Your task to perform on an android device: Set an alarm for 1pm Image 0: 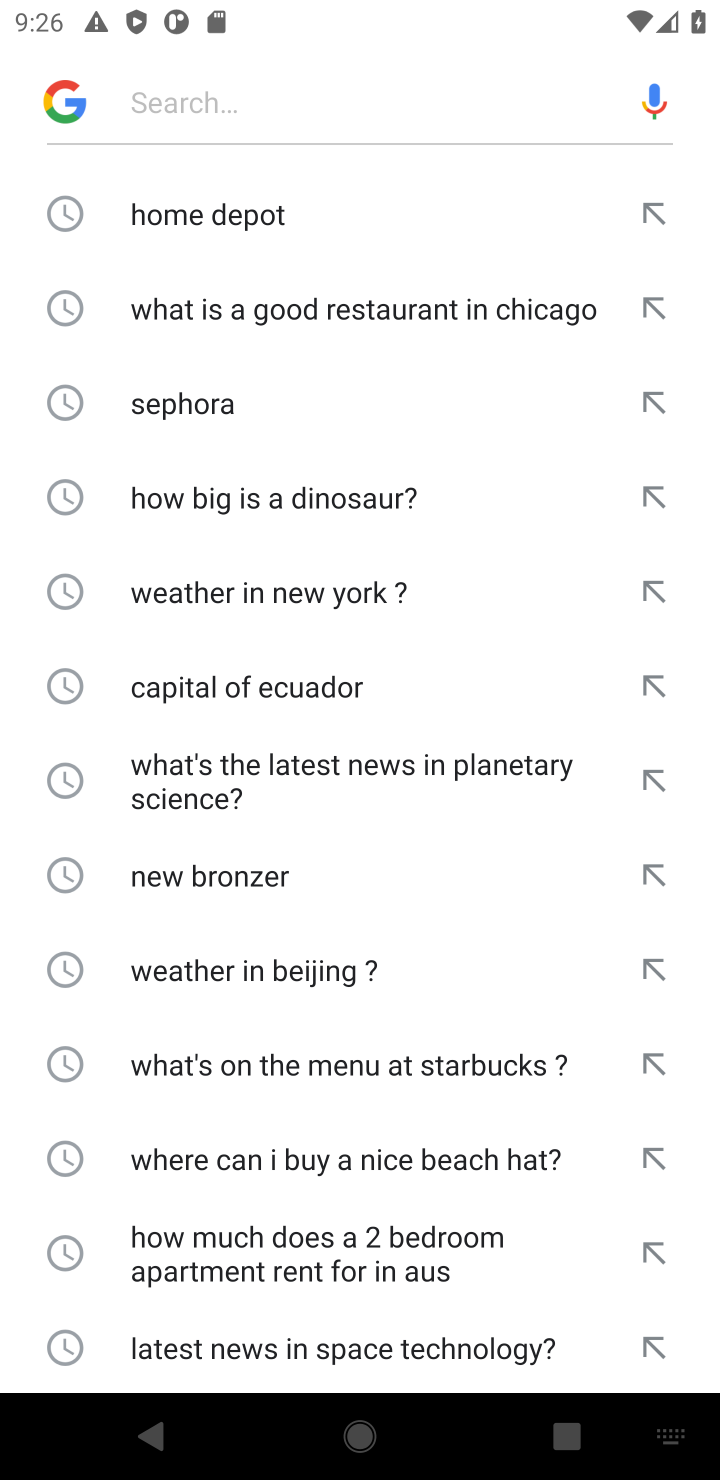
Step 0: press home button
Your task to perform on an android device: Set an alarm for 1pm Image 1: 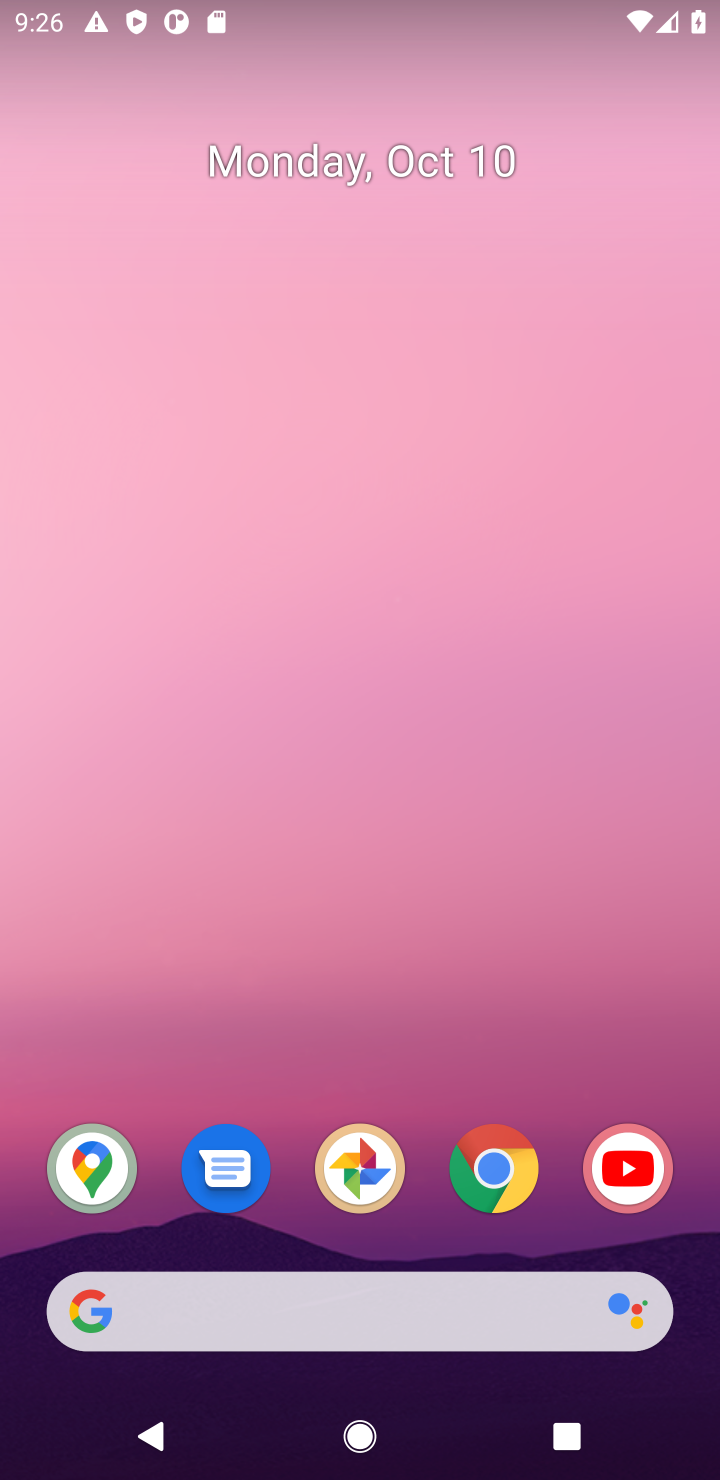
Step 1: drag from (577, 847) to (625, 288)
Your task to perform on an android device: Set an alarm for 1pm Image 2: 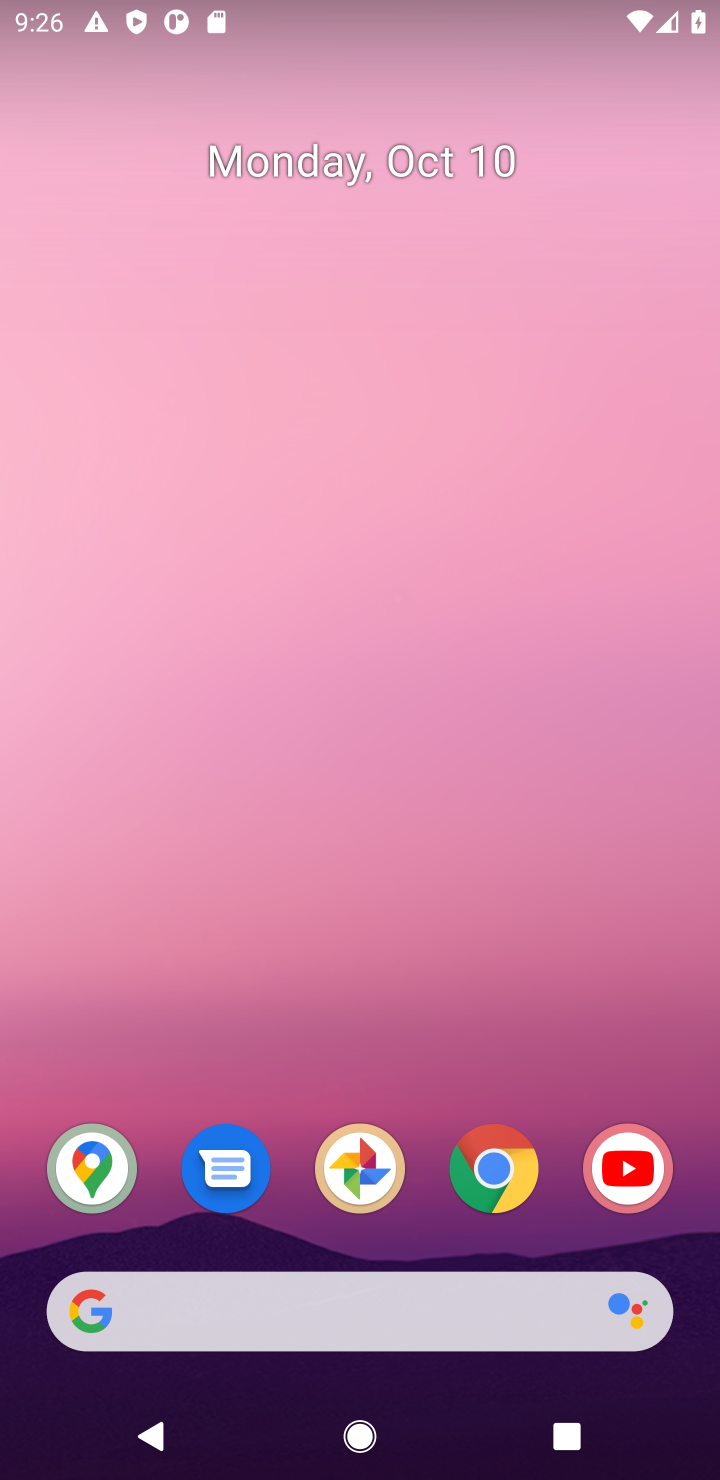
Step 2: drag from (610, 1073) to (603, 3)
Your task to perform on an android device: Set an alarm for 1pm Image 3: 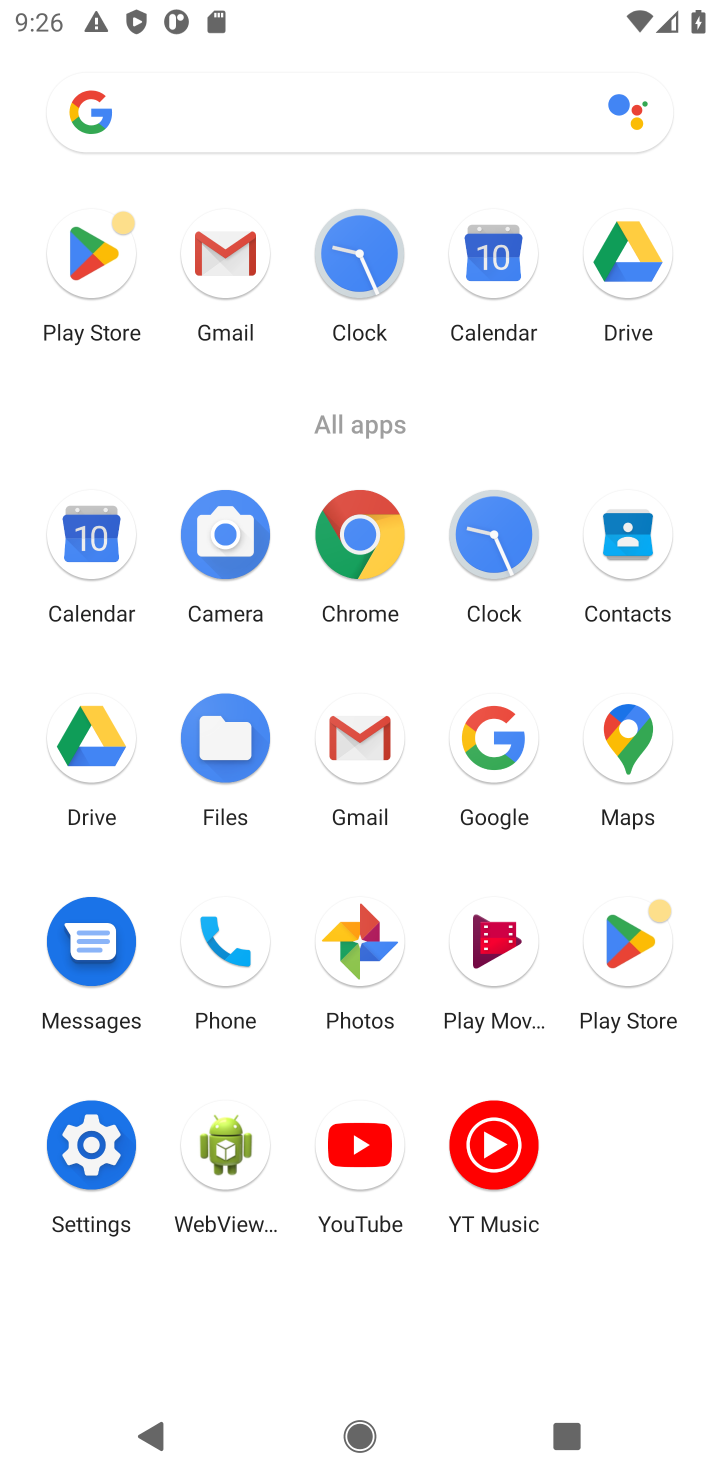
Step 3: click (377, 253)
Your task to perform on an android device: Set an alarm for 1pm Image 4: 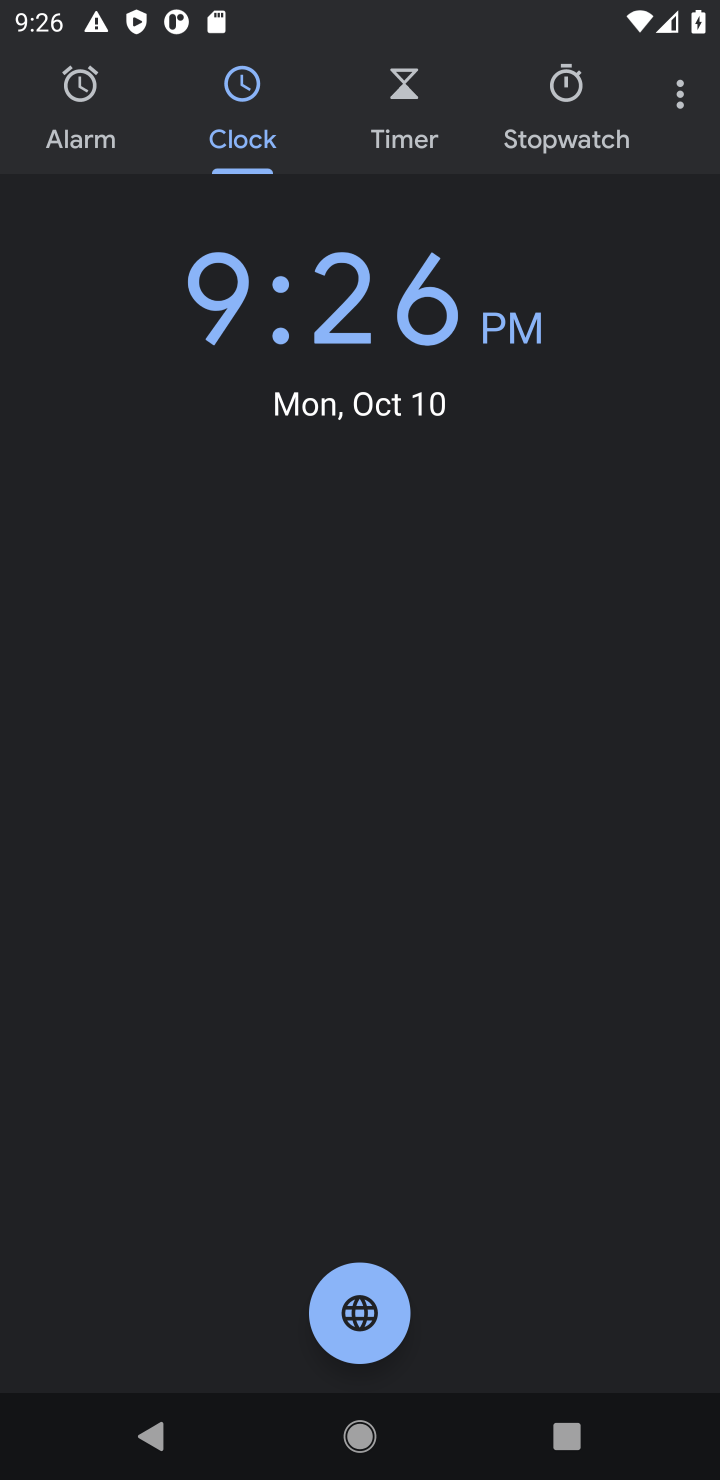
Step 4: click (106, 114)
Your task to perform on an android device: Set an alarm for 1pm Image 5: 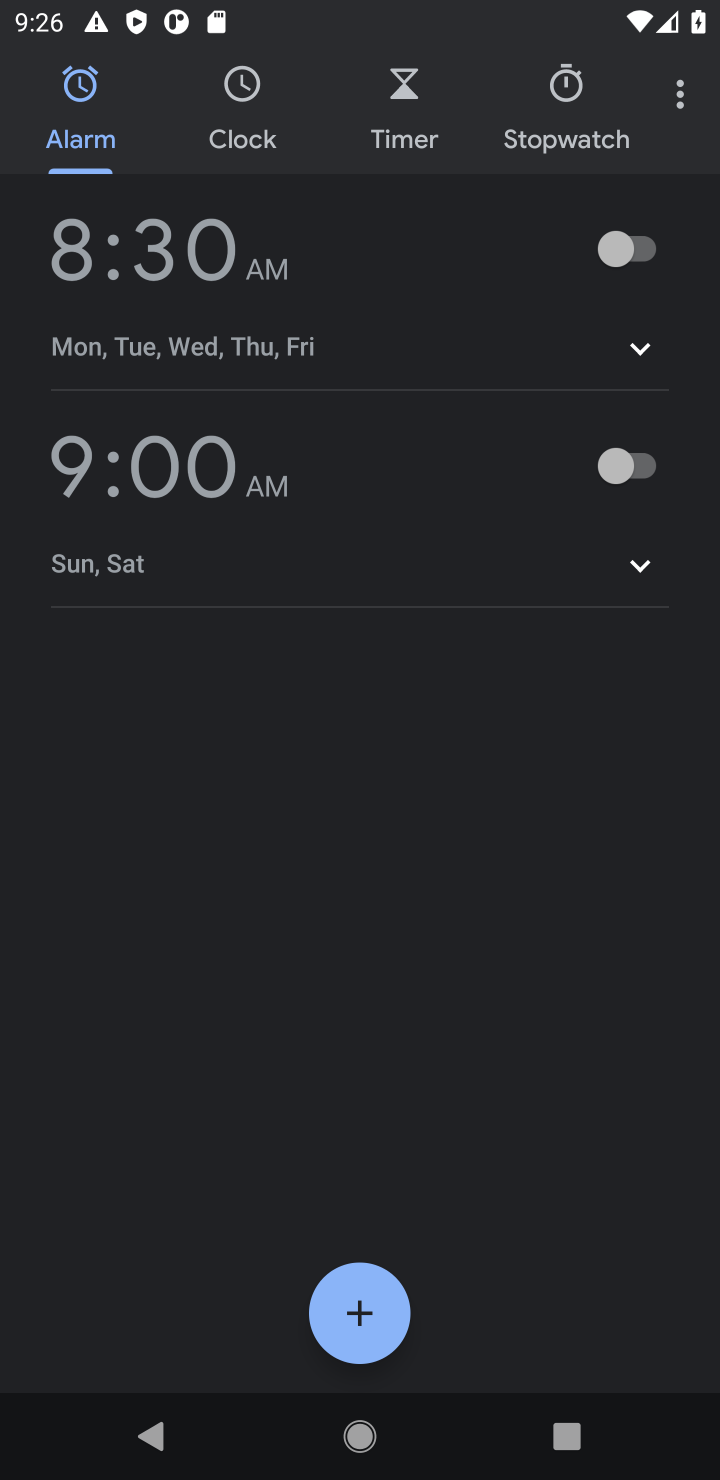
Step 5: click (377, 1309)
Your task to perform on an android device: Set an alarm for 1pm Image 6: 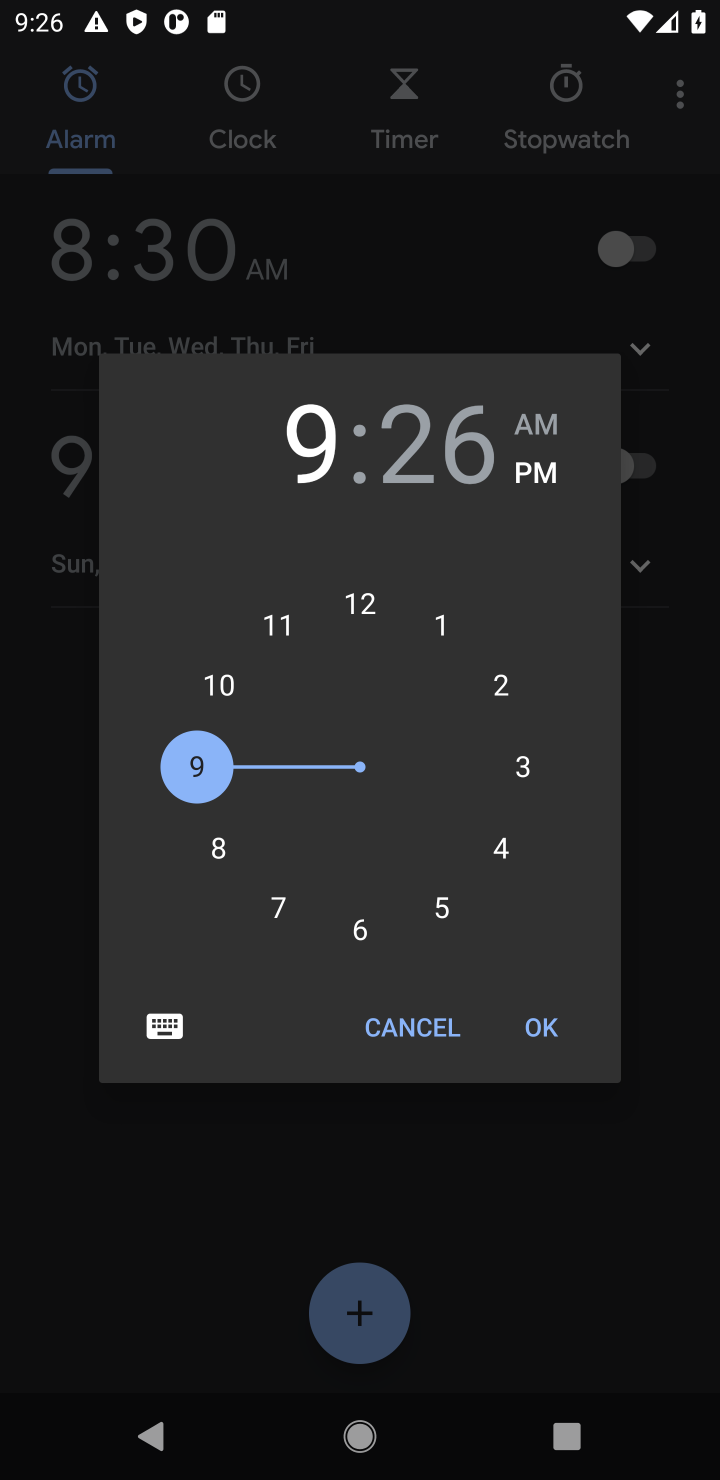
Step 6: click (441, 643)
Your task to perform on an android device: Set an alarm for 1pm Image 7: 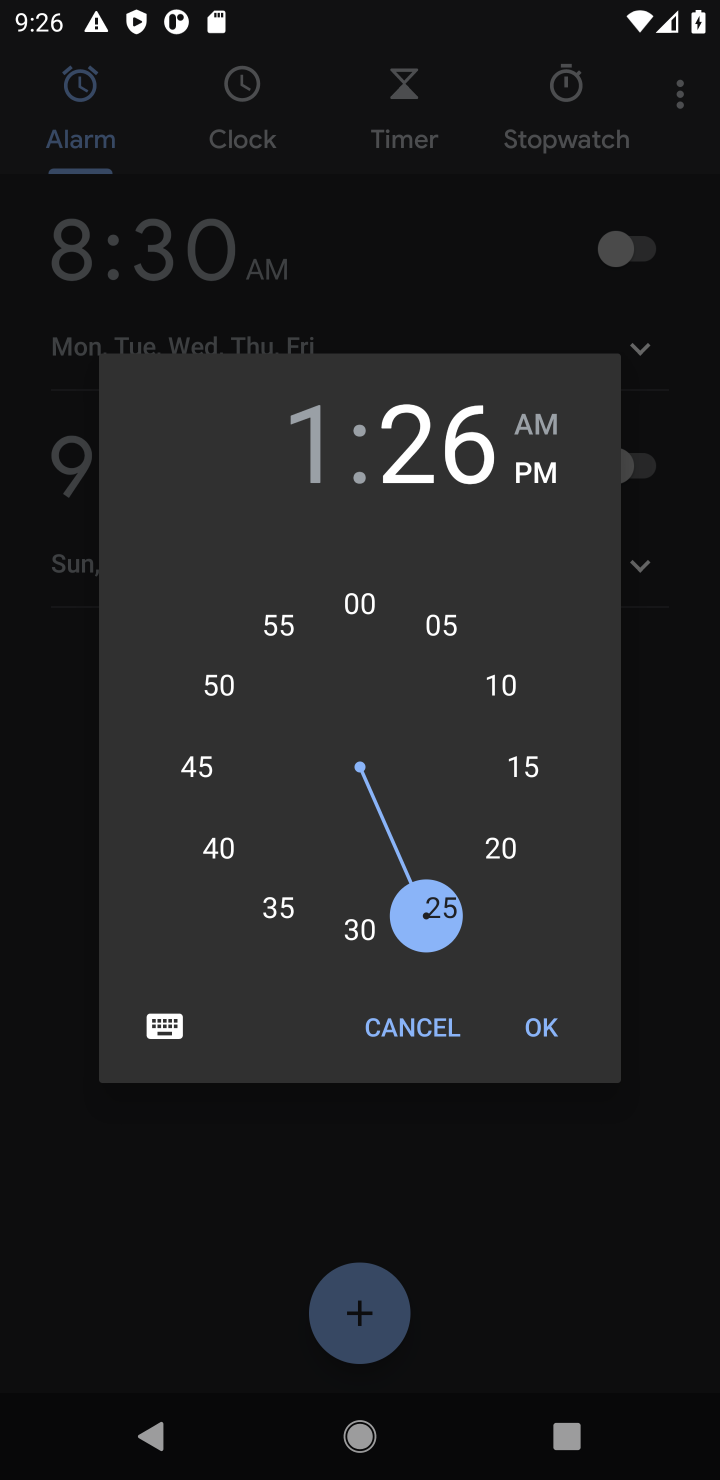
Step 7: click (365, 608)
Your task to perform on an android device: Set an alarm for 1pm Image 8: 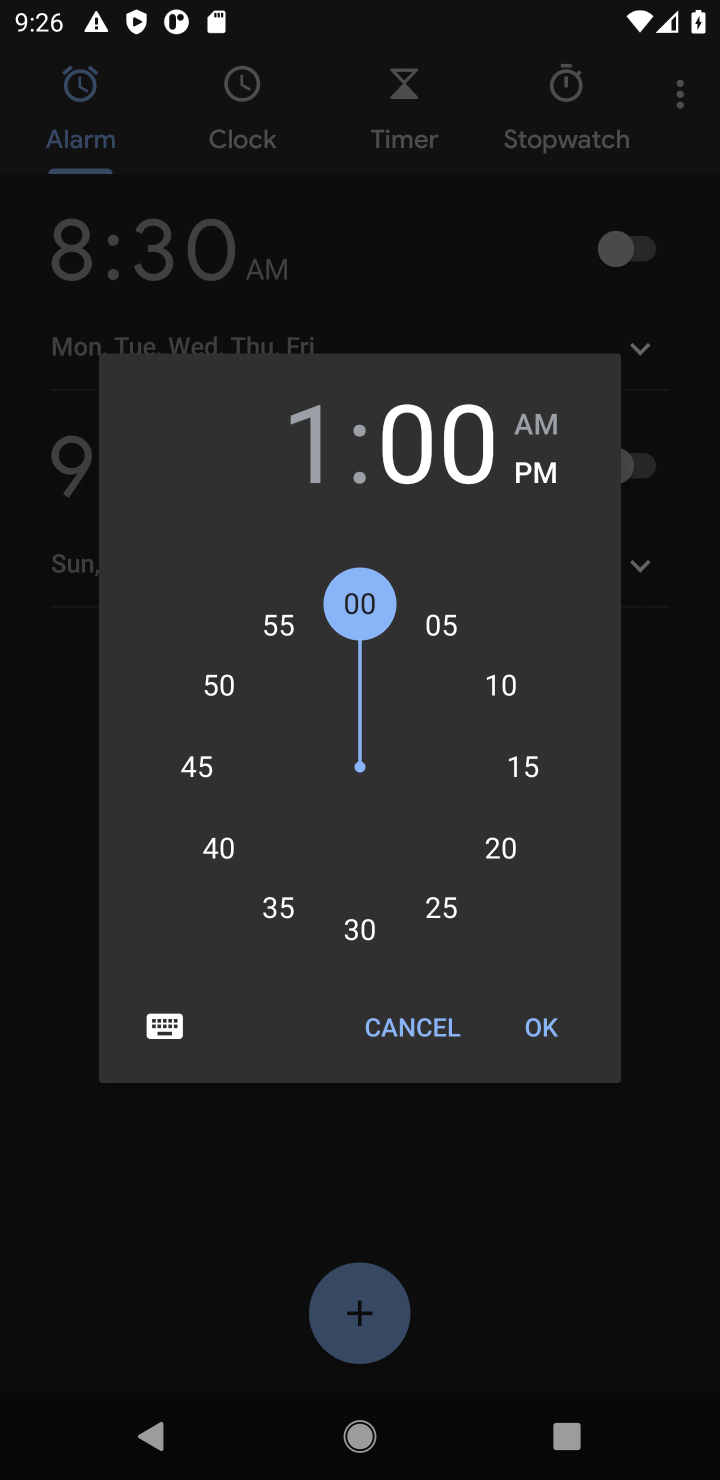
Step 8: click (538, 1036)
Your task to perform on an android device: Set an alarm for 1pm Image 9: 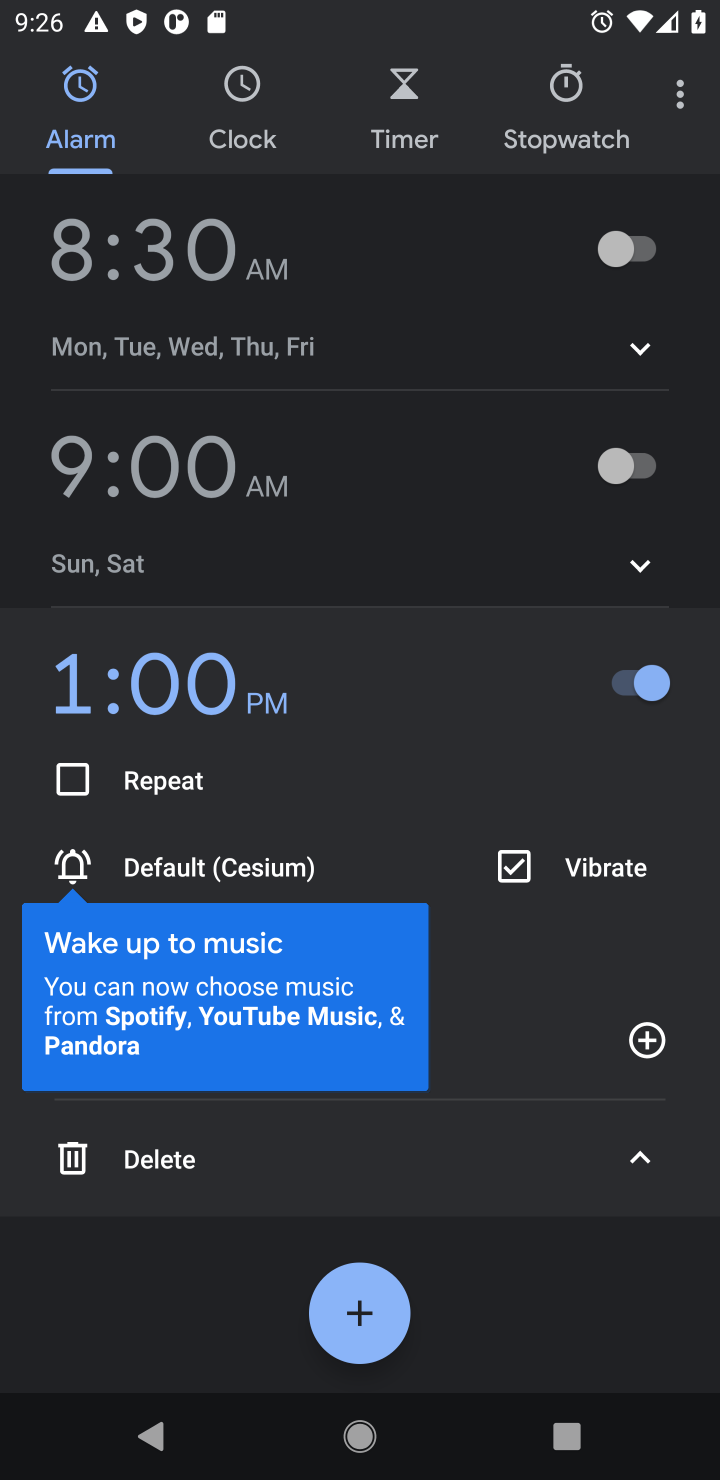
Step 9: task complete